Your task to perform on an android device: see sites visited before in the chrome app Image 0: 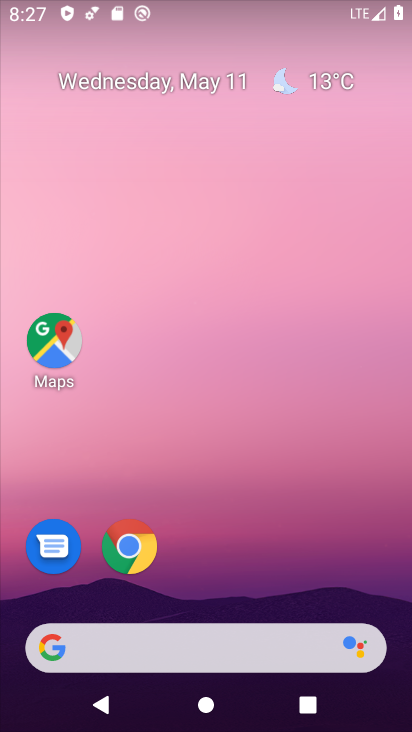
Step 0: click (128, 542)
Your task to perform on an android device: see sites visited before in the chrome app Image 1: 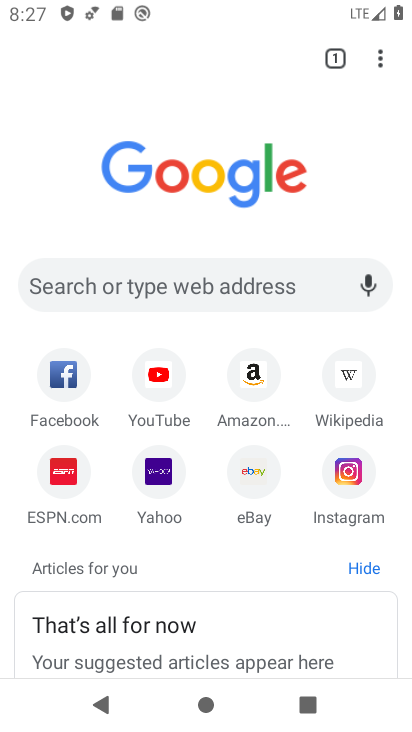
Step 1: task complete